Your task to perform on an android device: turn off wifi Image 0: 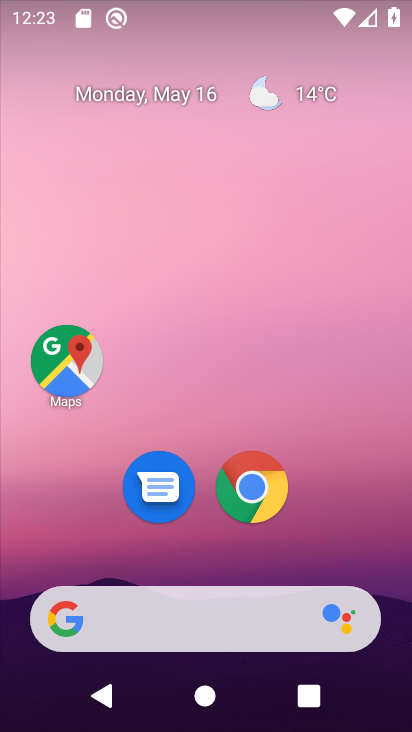
Step 0: drag from (140, 573) to (206, 141)
Your task to perform on an android device: turn off wifi Image 1: 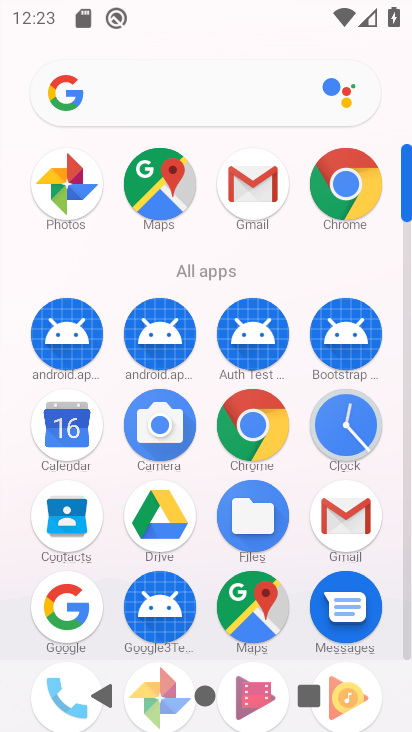
Step 1: drag from (137, 638) to (189, 398)
Your task to perform on an android device: turn off wifi Image 2: 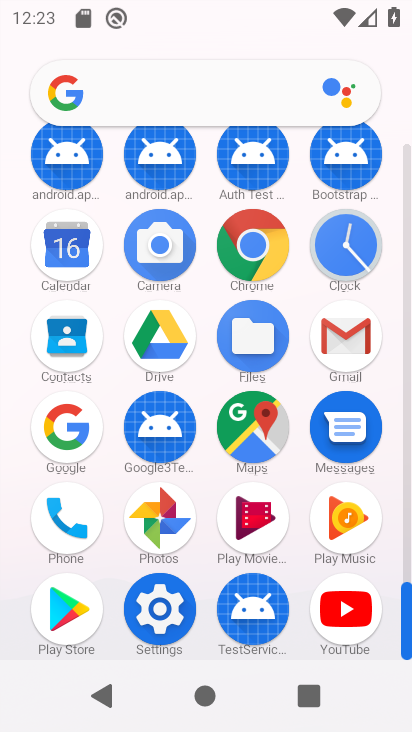
Step 2: click (171, 627)
Your task to perform on an android device: turn off wifi Image 3: 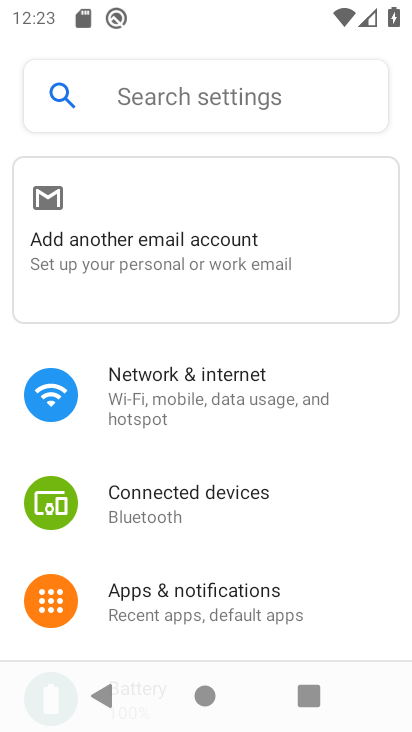
Step 3: click (275, 390)
Your task to perform on an android device: turn off wifi Image 4: 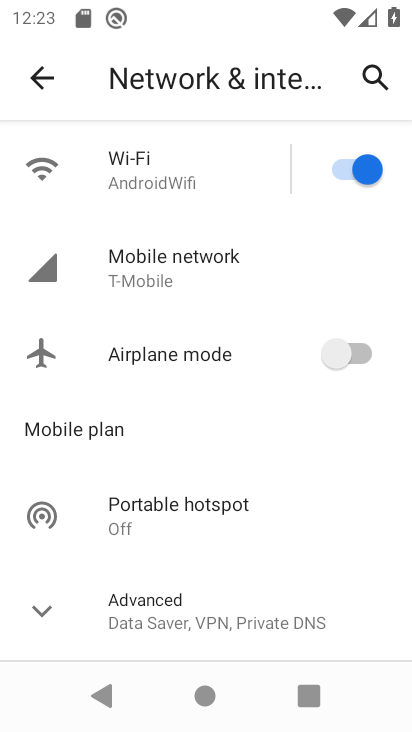
Step 4: click (339, 181)
Your task to perform on an android device: turn off wifi Image 5: 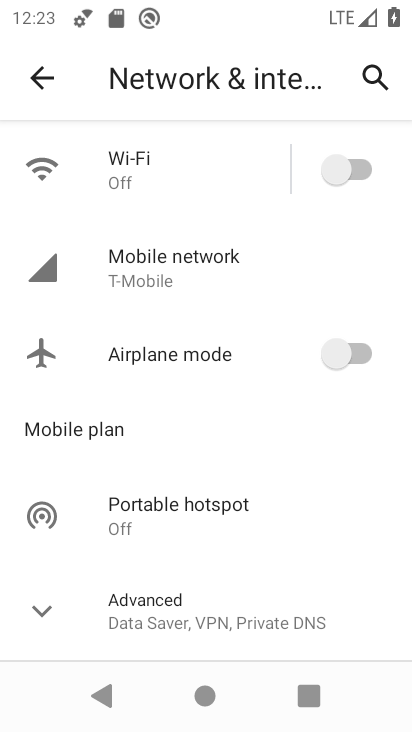
Step 5: task complete